Your task to perform on an android device: What is the recent news? Image 0: 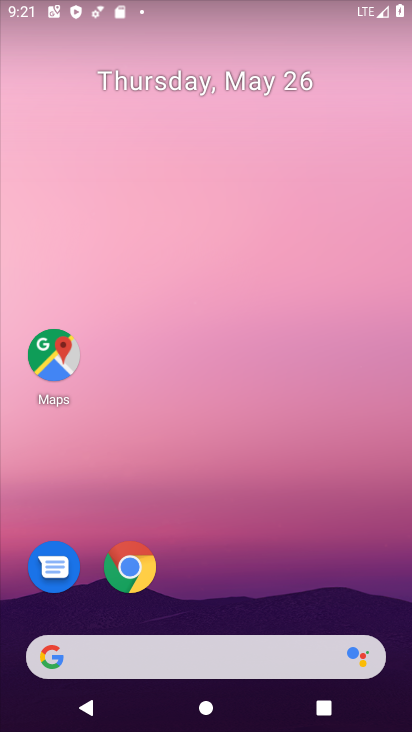
Step 0: click (174, 654)
Your task to perform on an android device: What is the recent news? Image 1: 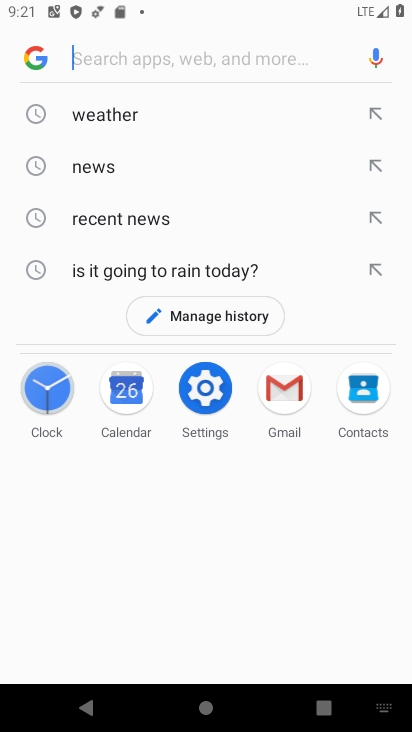
Step 1: type "What is the recent news?"
Your task to perform on an android device: What is the recent news? Image 2: 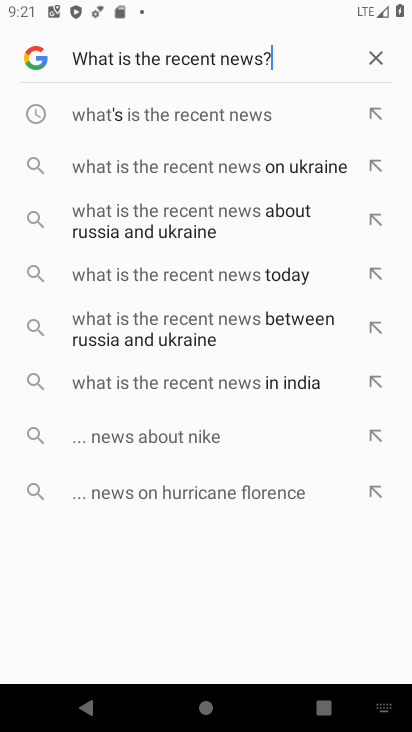
Step 2: click (301, 116)
Your task to perform on an android device: What is the recent news? Image 3: 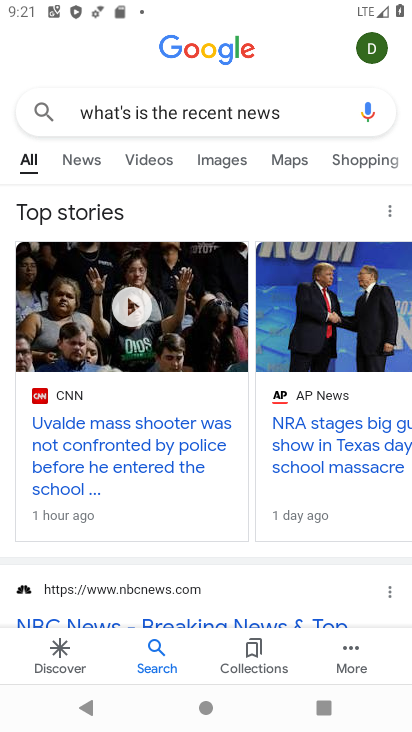
Step 3: task complete